Your task to perform on an android device: turn on the 24-hour format for clock Image 0: 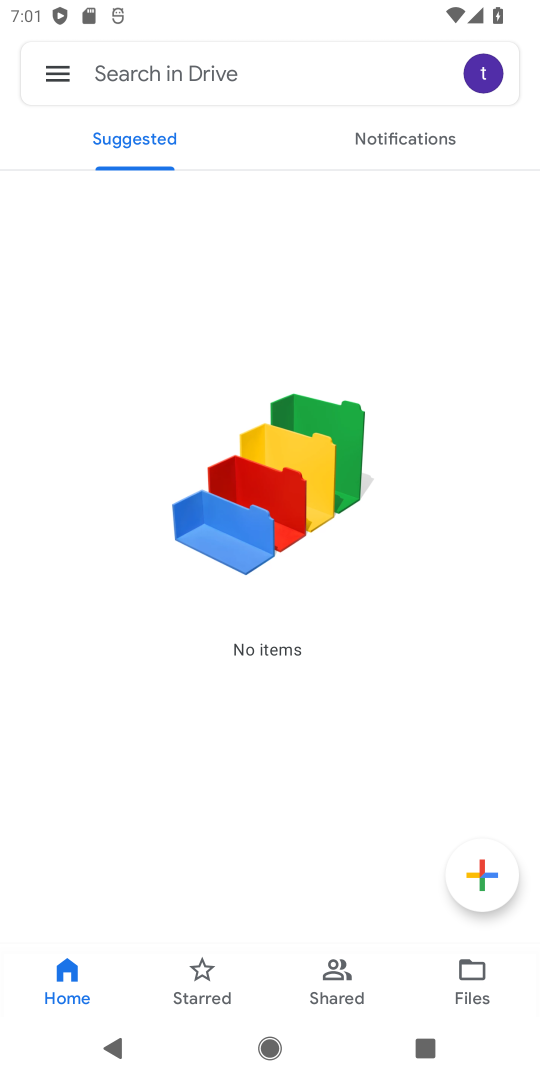
Step 0: press home button
Your task to perform on an android device: turn on the 24-hour format for clock Image 1: 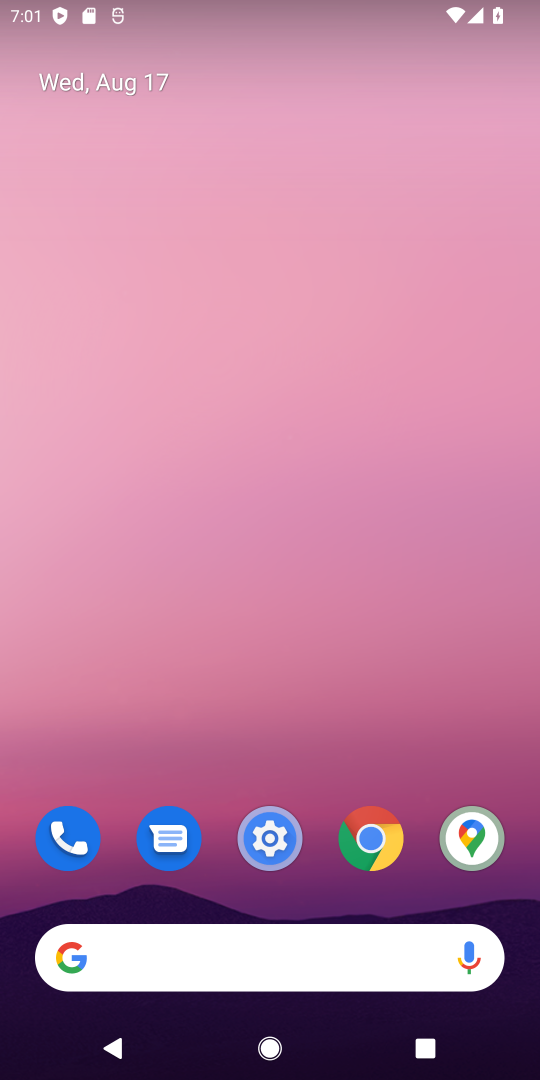
Step 1: drag from (400, 886) to (344, 11)
Your task to perform on an android device: turn on the 24-hour format for clock Image 2: 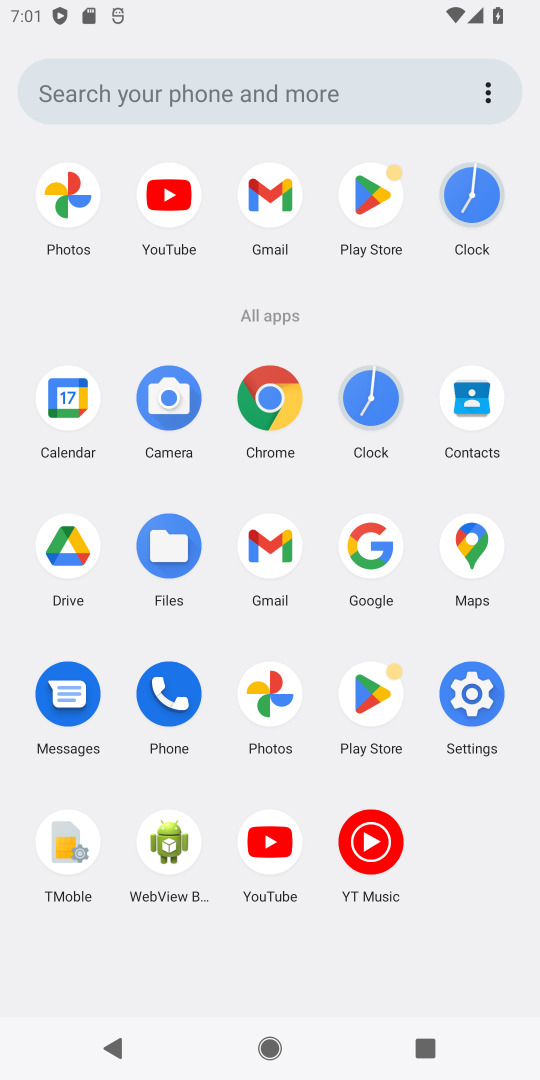
Step 2: click (483, 190)
Your task to perform on an android device: turn on the 24-hour format for clock Image 3: 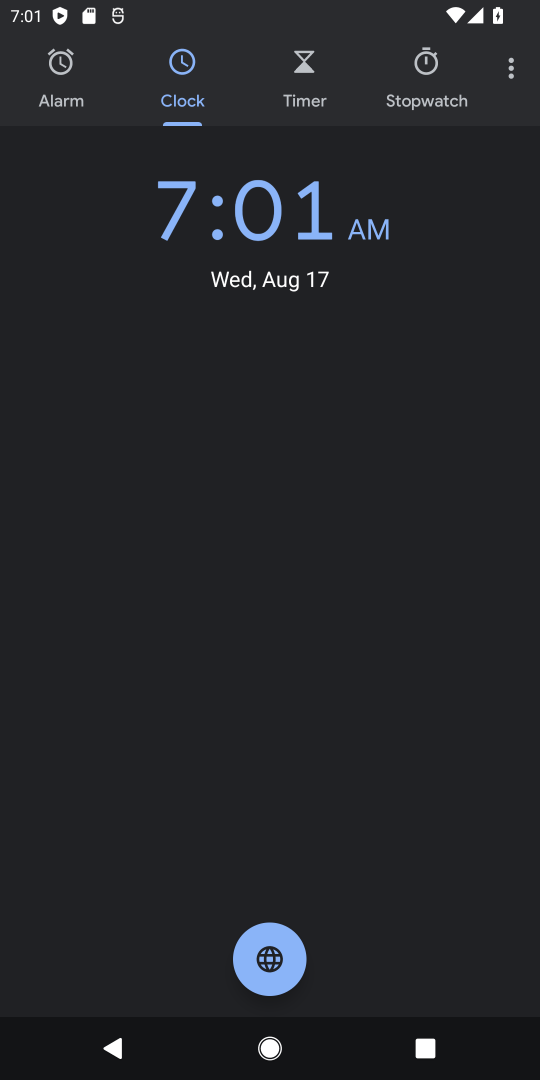
Step 3: click (516, 76)
Your task to perform on an android device: turn on the 24-hour format for clock Image 4: 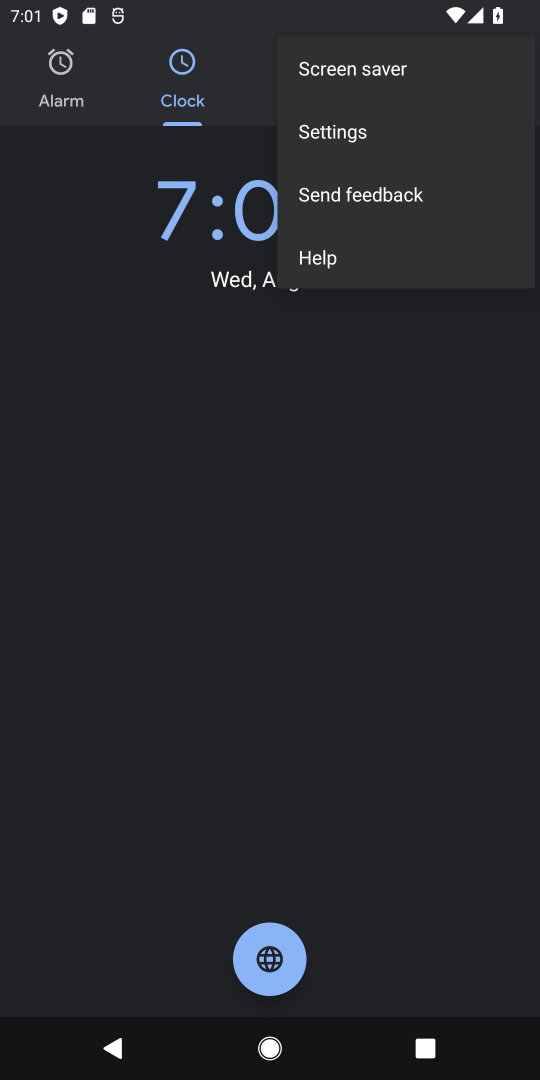
Step 4: click (359, 136)
Your task to perform on an android device: turn on the 24-hour format for clock Image 5: 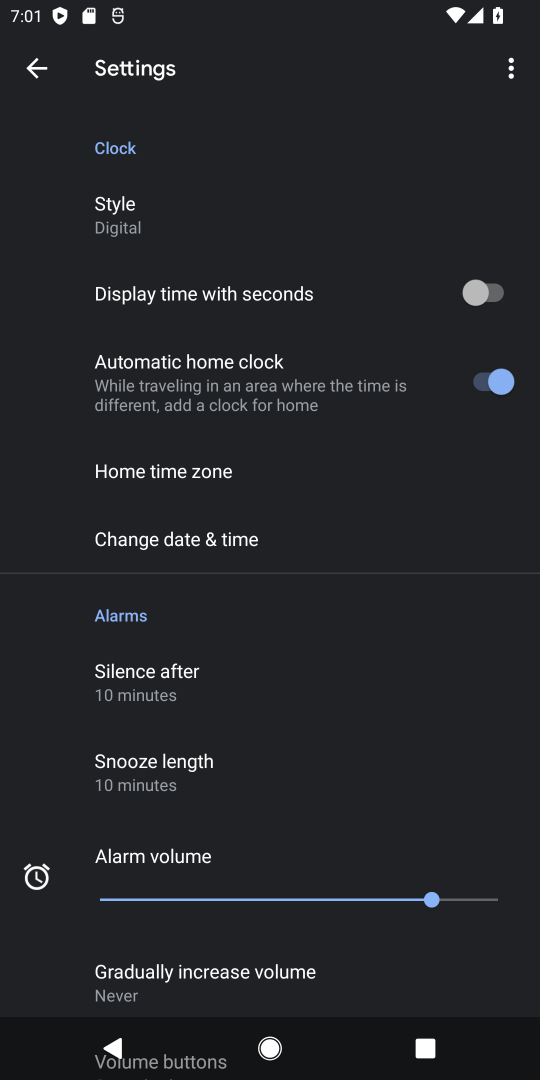
Step 5: click (278, 545)
Your task to perform on an android device: turn on the 24-hour format for clock Image 6: 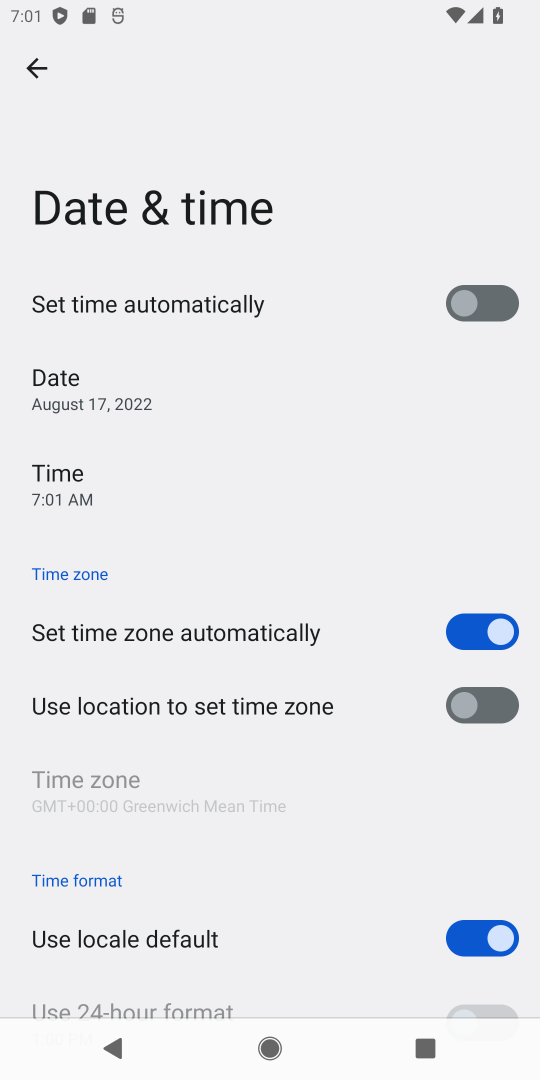
Step 6: drag from (260, 584) to (248, 131)
Your task to perform on an android device: turn on the 24-hour format for clock Image 7: 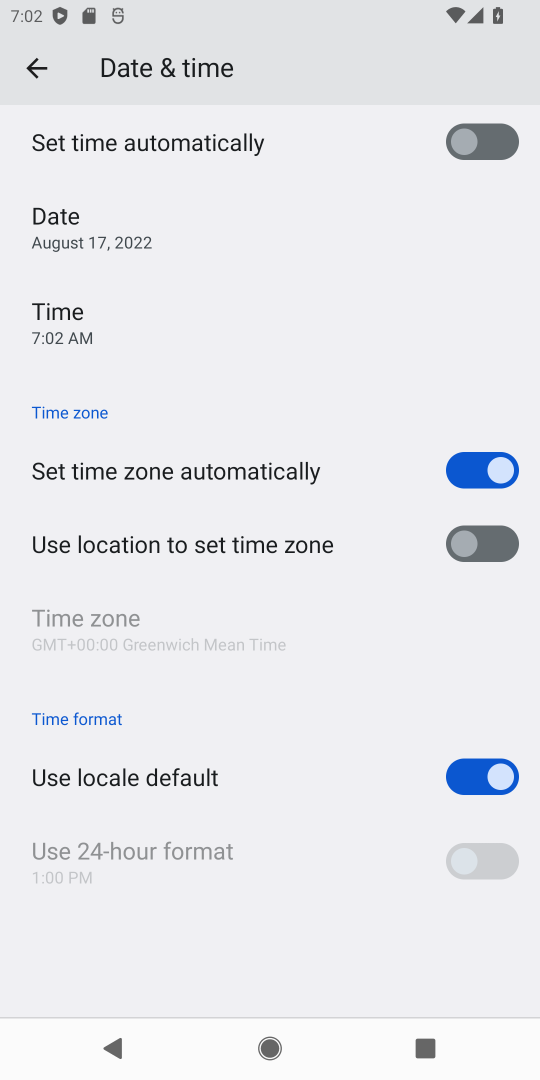
Step 7: click (429, 864)
Your task to perform on an android device: turn on the 24-hour format for clock Image 8: 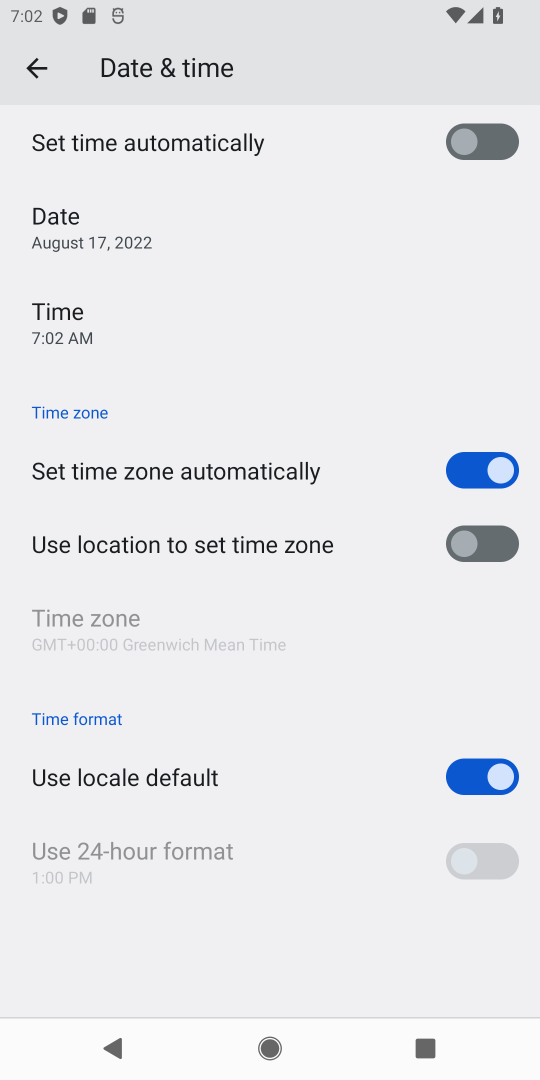
Step 8: task complete